Your task to perform on an android device: turn notification dots on Image 0: 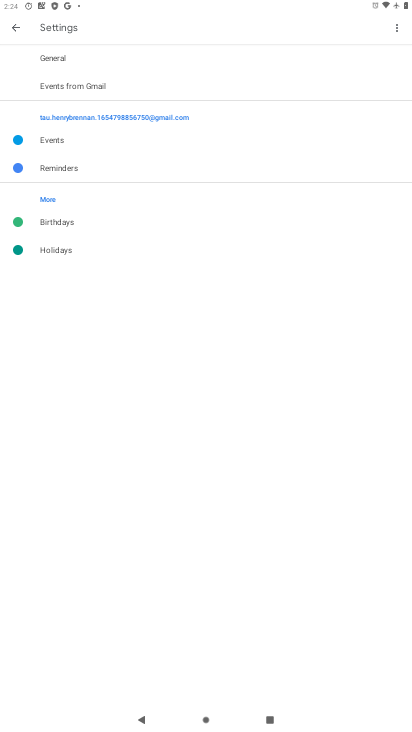
Step 0: press home button
Your task to perform on an android device: turn notification dots on Image 1: 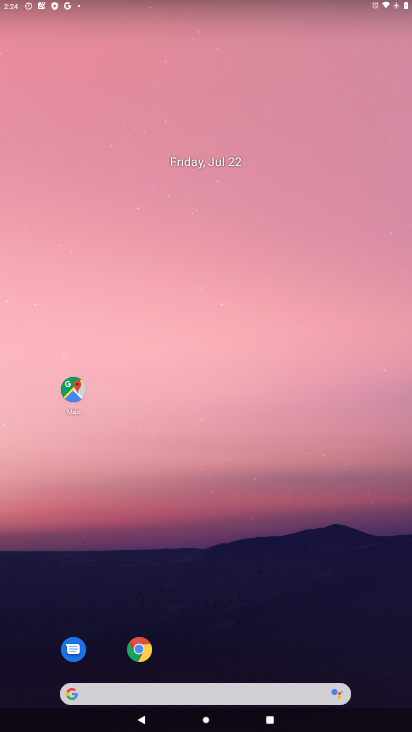
Step 1: drag from (259, 567) to (264, 86)
Your task to perform on an android device: turn notification dots on Image 2: 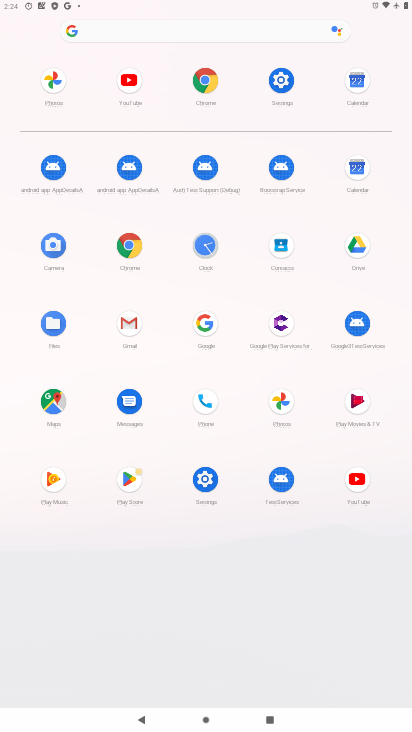
Step 2: click (282, 82)
Your task to perform on an android device: turn notification dots on Image 3: 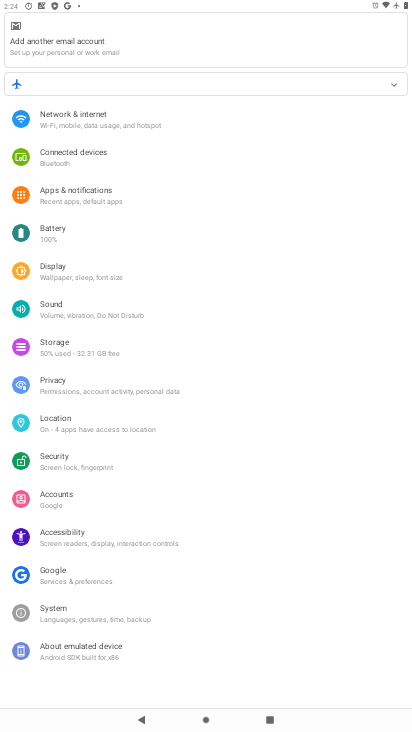
Step 3: click (73, 196)
Your task to perform on an android device: turn notification dots on Image 4: 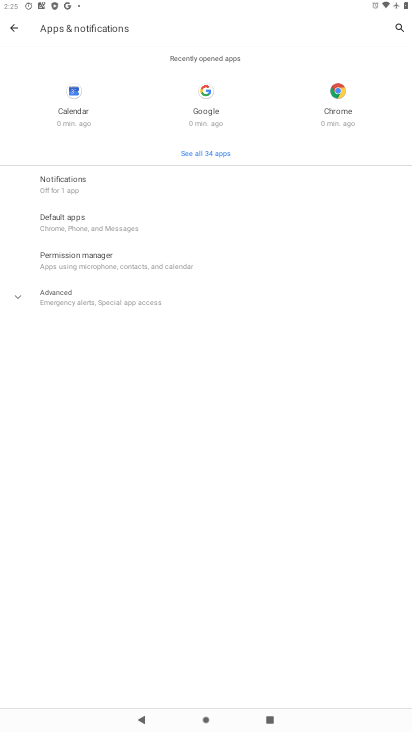
Step 4: click (57, 184)
Your task to perform on an android device: turn notification dots on Image 5: 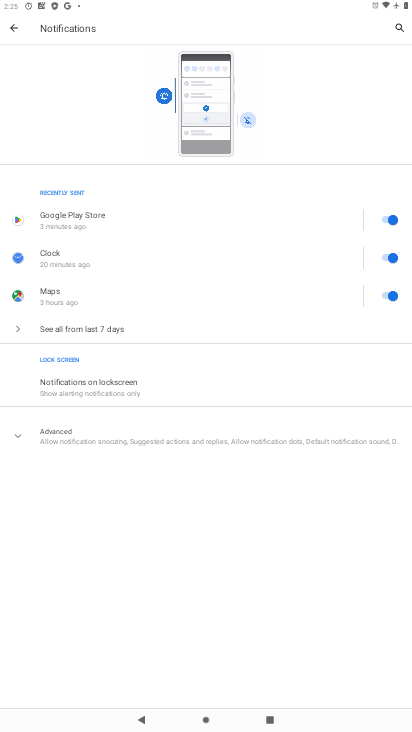
Step 5: click (137, 433)
Your task to perform on an android device: turn notification dots on Image 6: 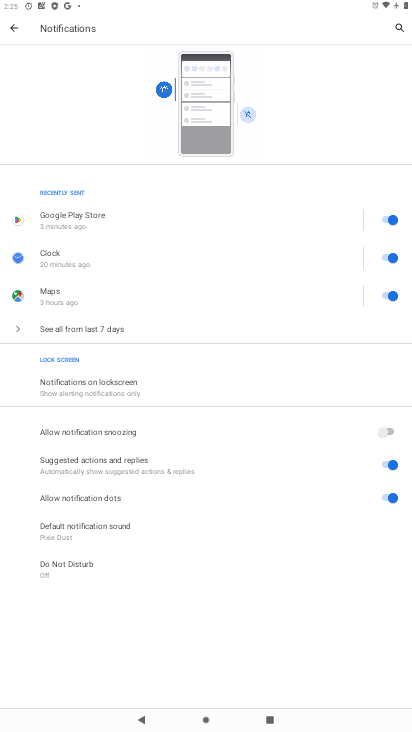
Step 6: task complete